Your task to perform on an android device: Turn on the flashlight Image 0: 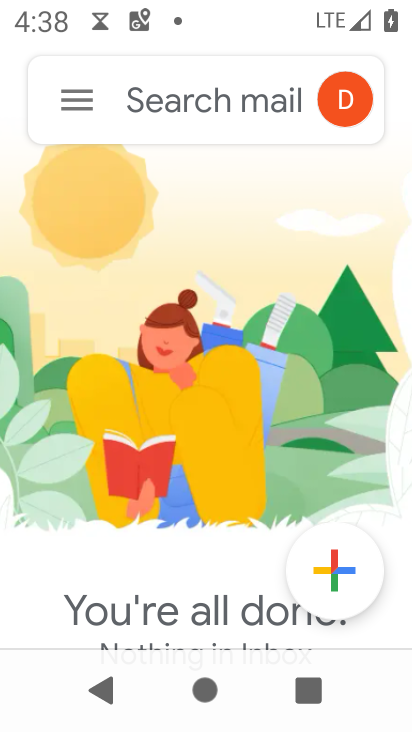
Step 0: press home button
Your task to perform on an android device: Turn on the flashlight Image 1: 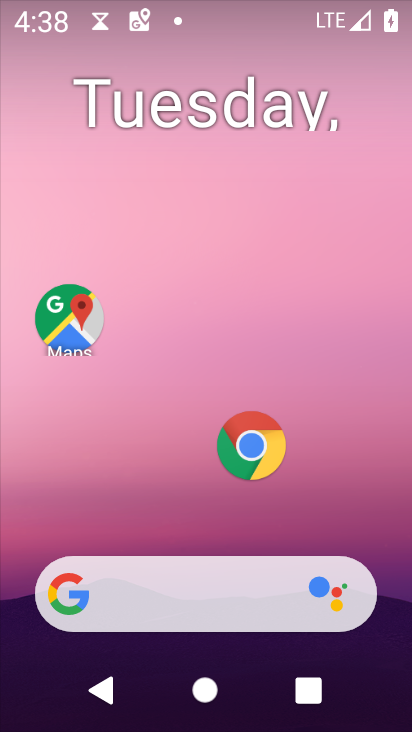
Step 1: drag from (164, 507) to (180, 1)
Your task to perform on an android device: Turn on the flashlight Image 2: 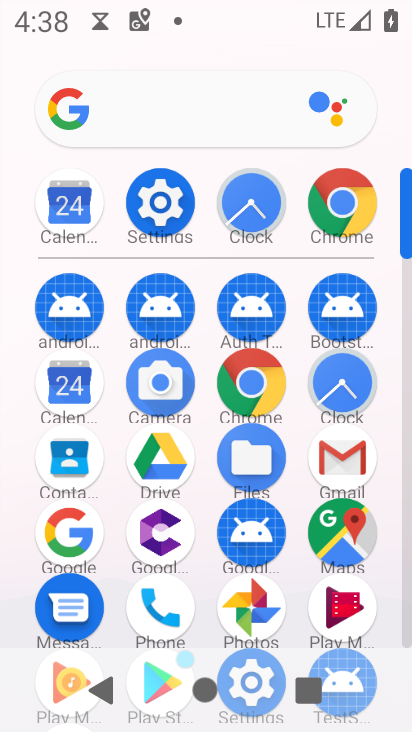
Step 2: click (154, 191)
Your task to perform on an android device: Turn on the flashlight Image 3: 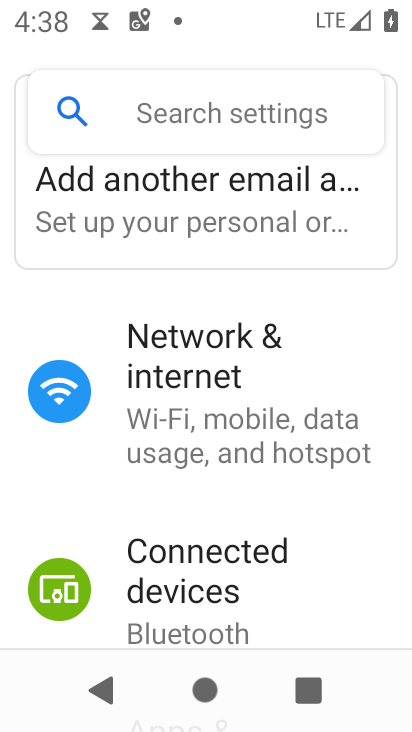
Step 3: click (222, 104)
Your task to perform on an android device: Turn on the flashlight Image 4: 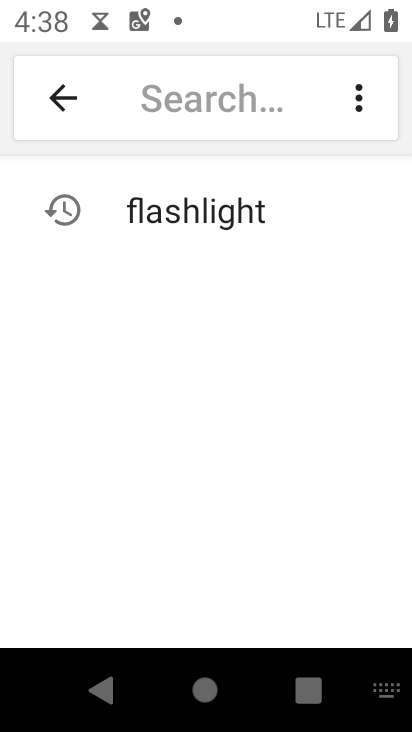
Step 4: type "flashlight"
Your task to perform on an android device: Turn on the flashlight Image 5: 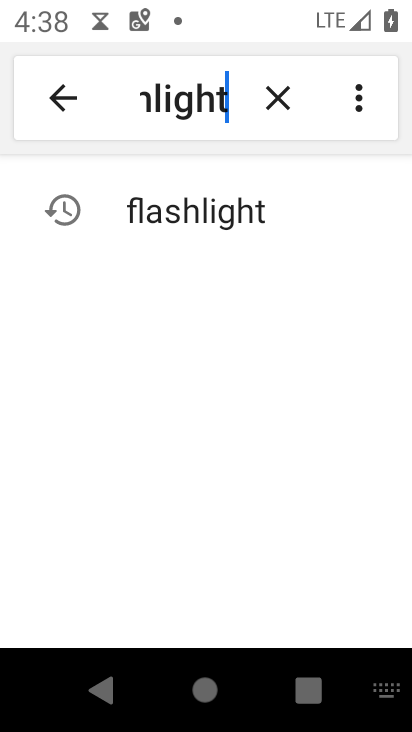
Step 5: click (265, 200)
Your task to perform on an android device: Turn on the flashlight Image 6: 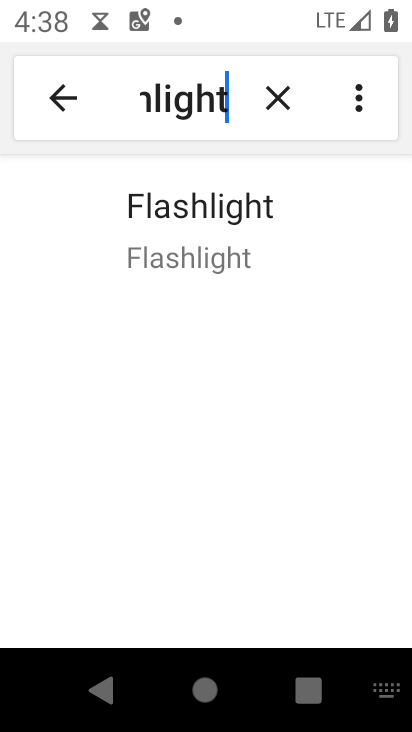
Step 6: click (271, 211)
Your task to perform on an android device: Turn on the flashlight Image 7: 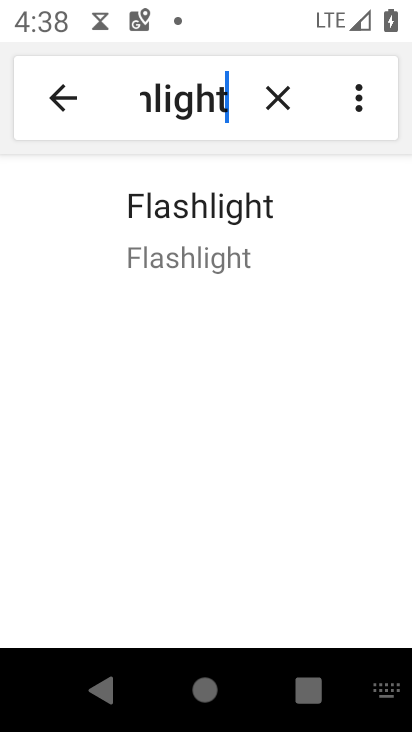
Step 7: task complete